Your task to perform on an android device: What's the weather going to be tomorrow? Image 0: 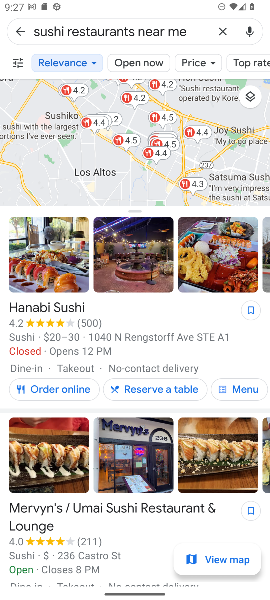
Step 0: press home button
Your task to perform on an android device: What's the weather going to be tomorrow? Image 1: 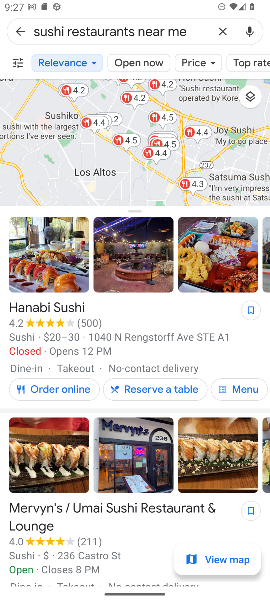
Step 1: press home button
Your task to perform on an android device: What's the weather going to be tomorrow? Image 2: 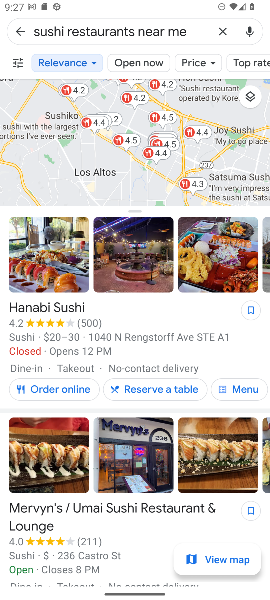
Step 2: press home button
Your task to perform on an android device: What's the weather going to be tomorrow? Image 3: 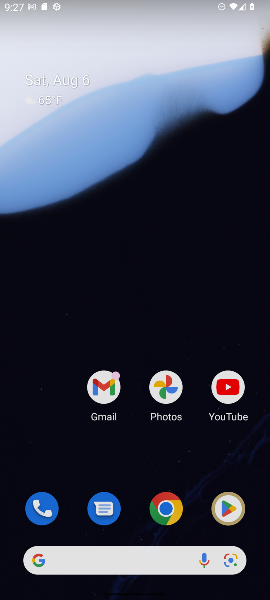
Step 3: press home button
Your task to perform on an android device: What's the weather going to be tomorrow? Image 4: 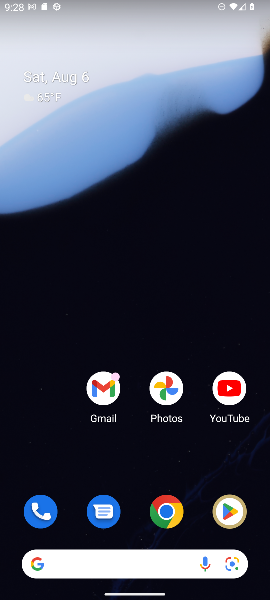
Step 4: click (164, 518)
Your task to perform on an android device: What's the weather going to be tomorrow? Image 5: 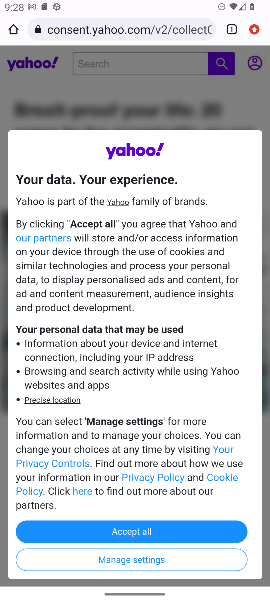
Step 5: click (104, 31)
Your task to perform on an android device: What's the weather going to be tomorrow? Image 6: 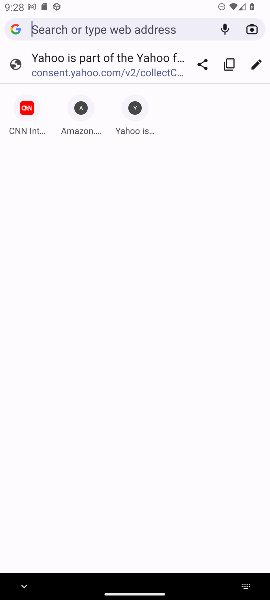
Step 6: type "What's the weather going to be tomorrow?"
Your task to perform on an android device: What's the weather going to be tomorrow? Image 7: 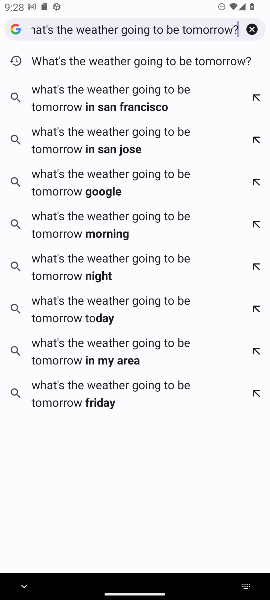
Step 7: click (95, 62)
Your task to perform on an android device: What's the weather going to be tomorrow? Image 8: 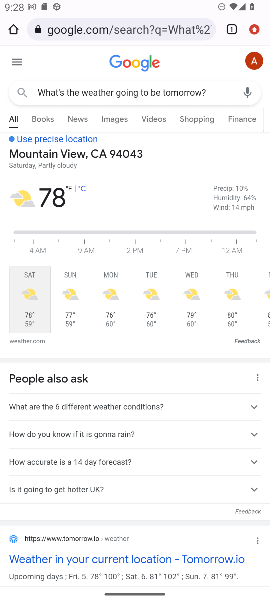
Step 8: task complete